Your task to perform on an android device: Go to display settings Image 0: 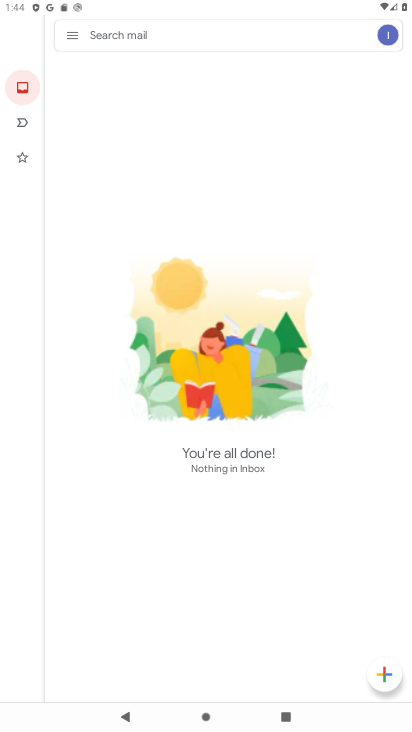
Step 0: press home button
Your task to perform on an android device: Go to display settings Image 1: 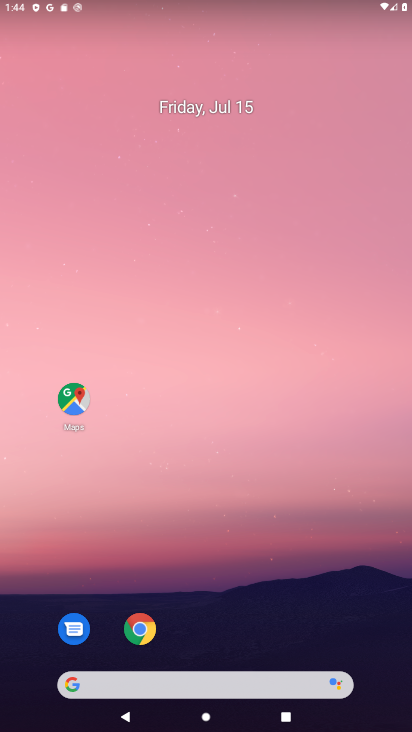
Step 1: drag from (174, 642) to (188, 83)
Your task to perform on an android device: Go to display settings Image 2: 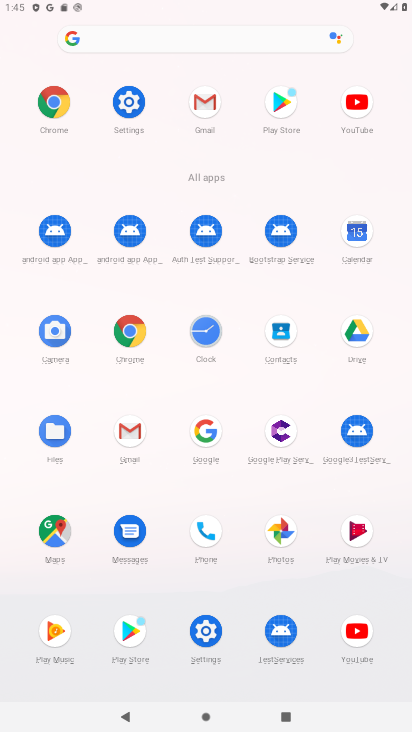
Step 2: click (125, 102)
Your task to perform on an android device: Go to display settings Image 3: 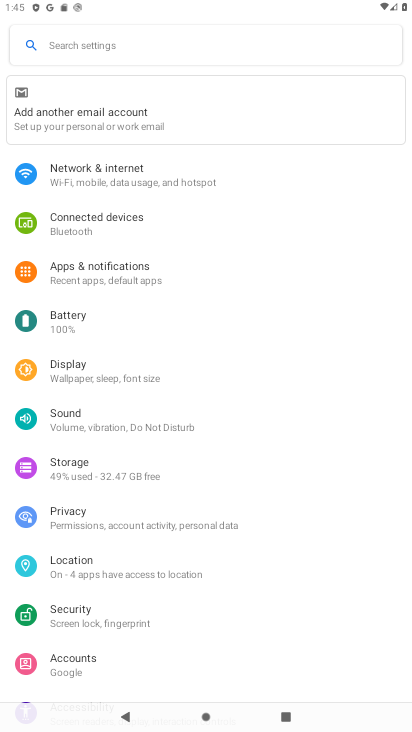
Step 3: click (68, 362)
Your task to perform on an android device: Go to display settings Image 4: 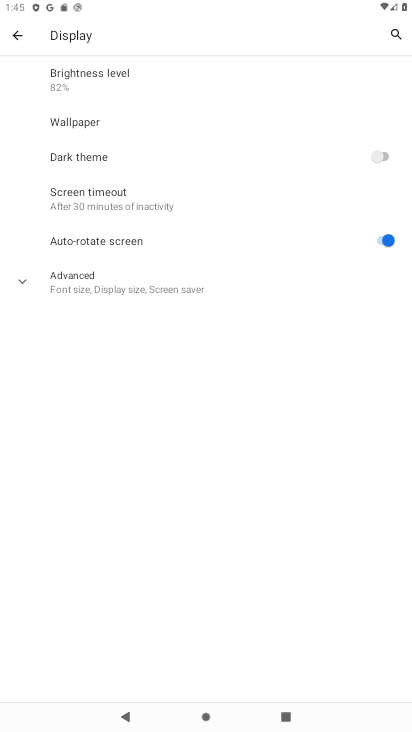
Step 4: task complete